Your task to perform on an android device: open app "ColorNote Notepad Notes" (install if not already installed), go to login, and select forgot password Image 0: 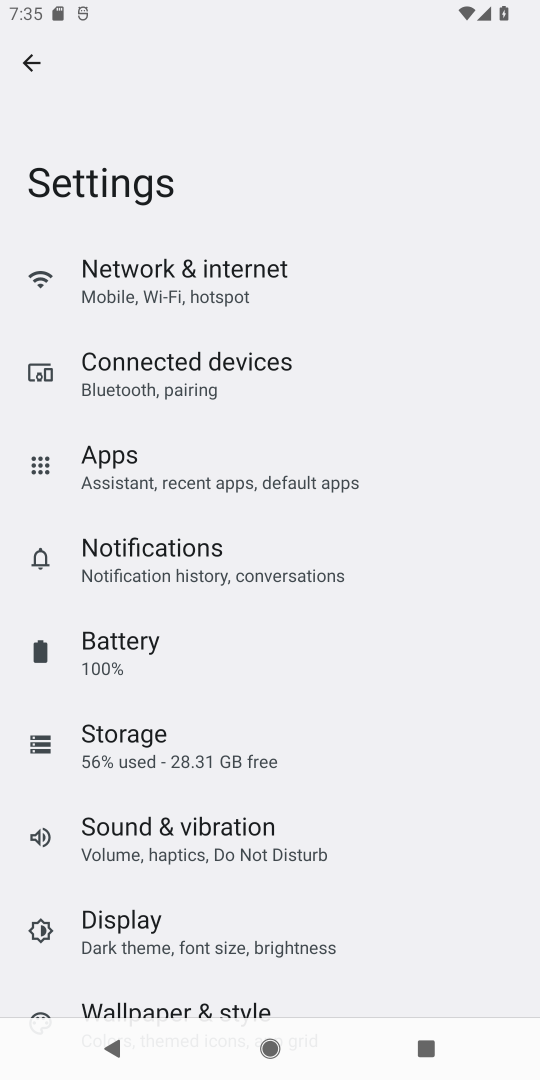
Step 0: press home button
Your task to perform on an android device: open app "ColorNote Notepad Notes" (install if not already installed), go to login, and select forgot password Image 1: 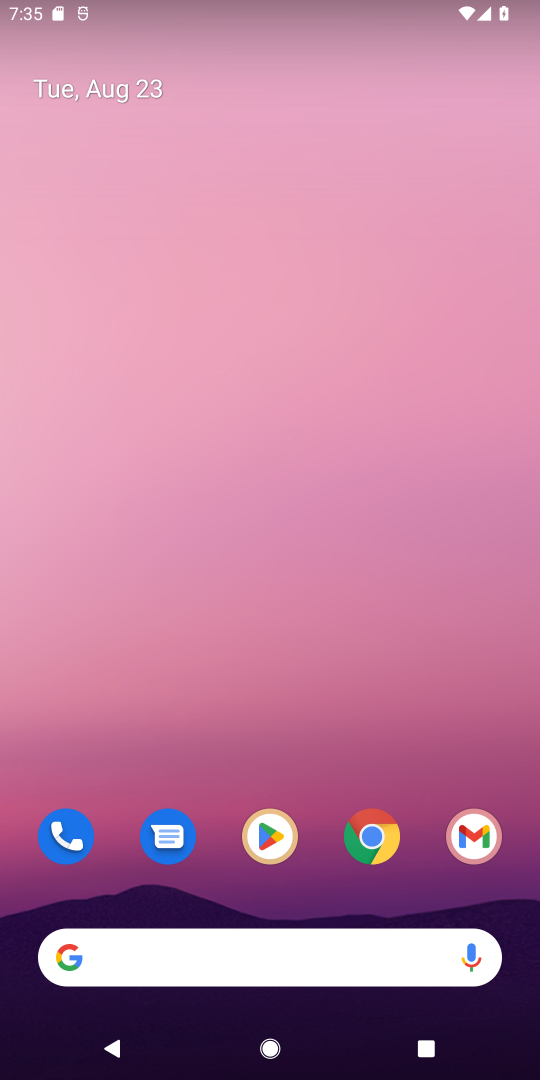
Step 1: click (267, 842)
Your task to perform on an android device: open app "ColorNote Notepad Notes" (install if not already installed), go to login, and select forgot password Image 2: 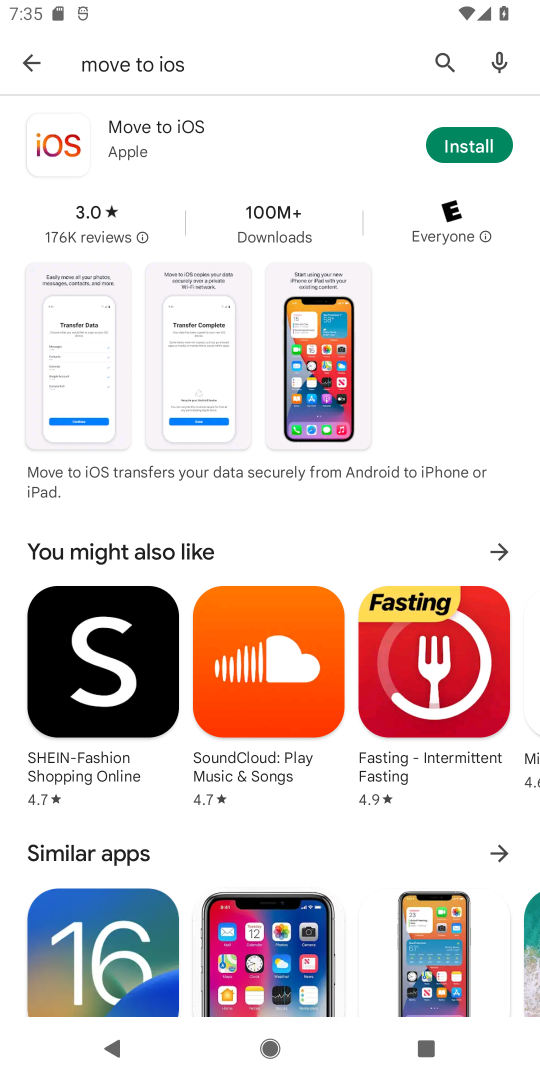
Step 2: click (440, 64)
Your task to perform on an android device: open app "ColorNote Notepad Notes" (install if not already installed), go to login, and select forgot password Image 3: 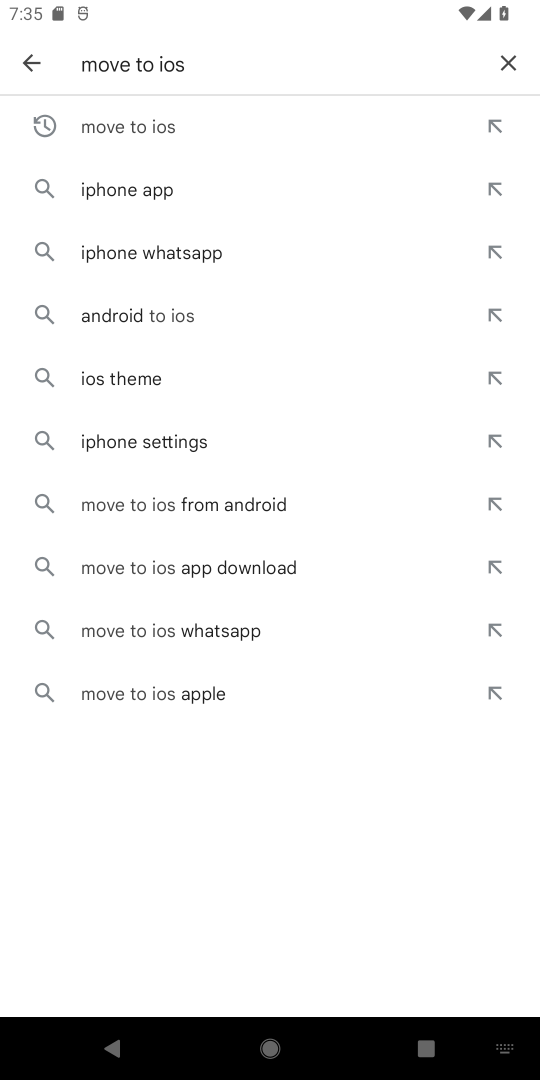
Step 3: click (511, 52)
Your task to perform on an android device: open app "ColorNote Notepad Notes" (install if not already installed), go to login, and select forgot password Image 4: 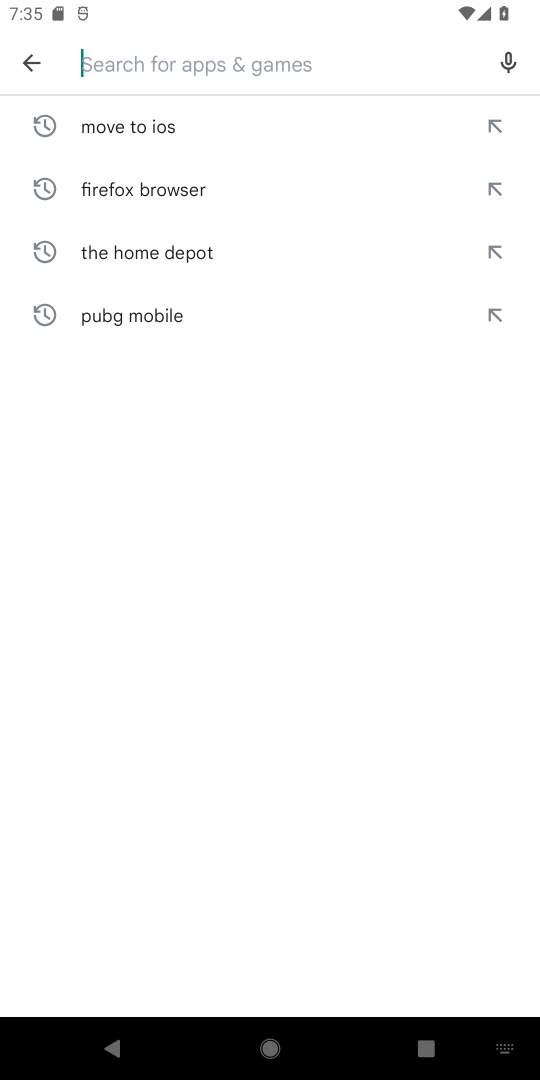
Step 4: type "ColorNote Notepad Notes"
Your task to perform on an android device: open app "ColorNote Notepad Notes" (install if not already installed), go to login, and select forgot password Image 5: 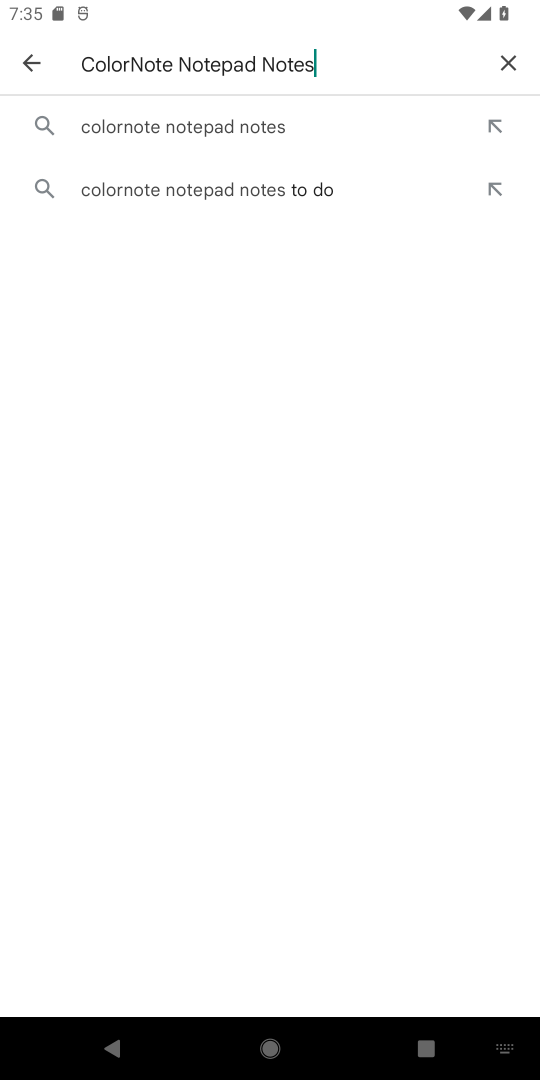
Step 5: click (249, 145)
Your task to perform on an android device: open app "ColorNote Notepad Notes" (install if not already installed), go to login, and select forgot password Image 6: 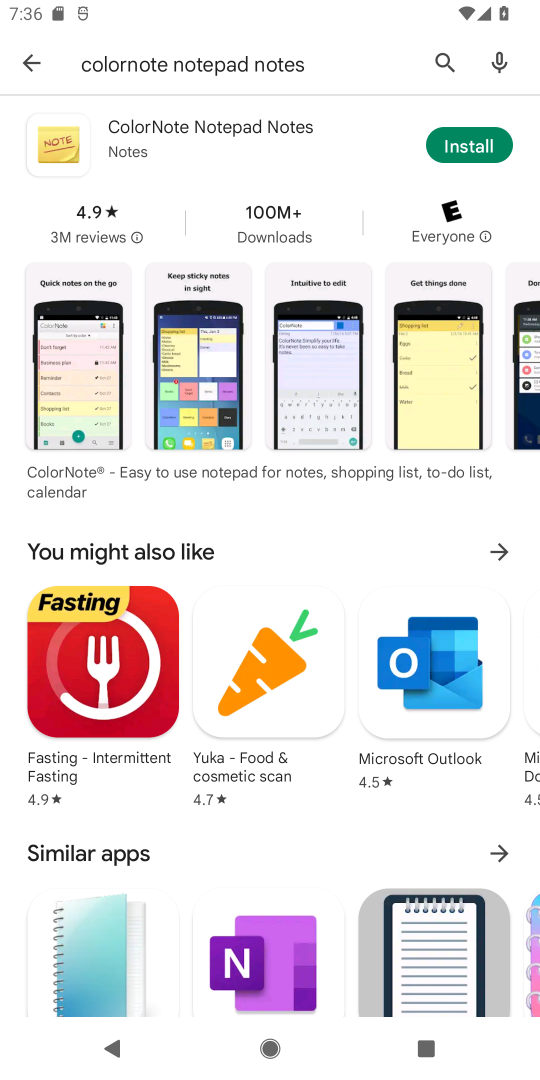
Step 6: click (455, 146)
Your task to perform on an android device: open app "ColorNote Notepad Notes" (install if not already installed), go to login, and select forgot password Image 7: 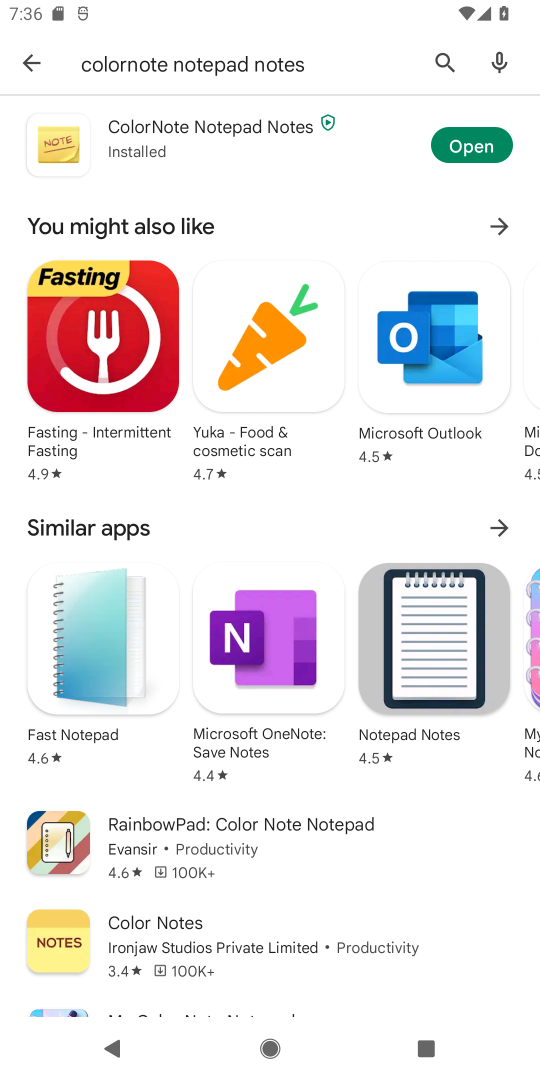
Step 7: click (486, 141)
Your task to perform on an android device: open app "ColorNote Notepad Notes" (install if not already installed), go to login, and select forgot password Image 8: 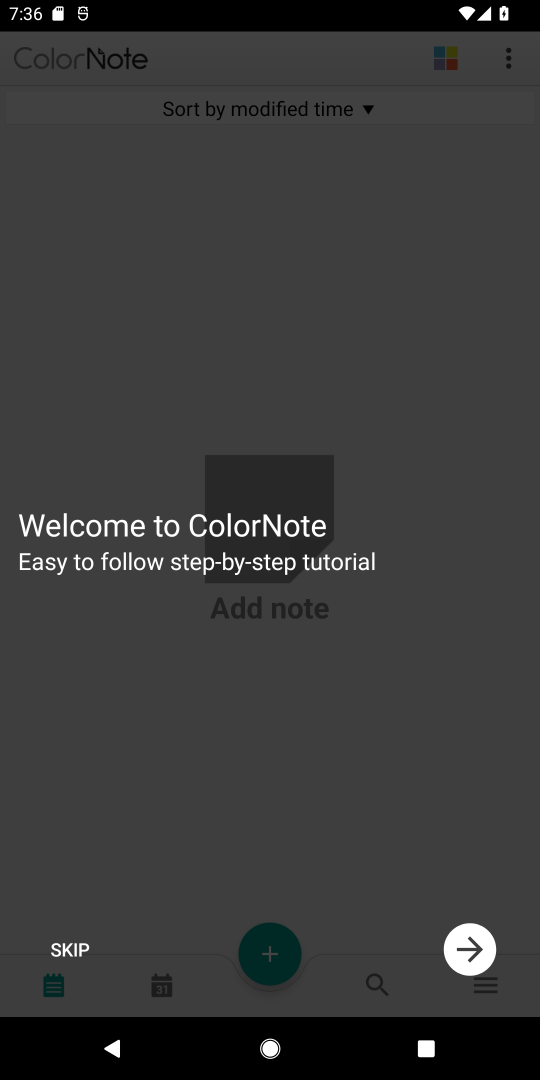
Step 8: click (69, 945)
Your task to perform on an android device: open app "ColorNote Notepad Notes" (install if not already installed), go to login, and select forgot password Image 9: 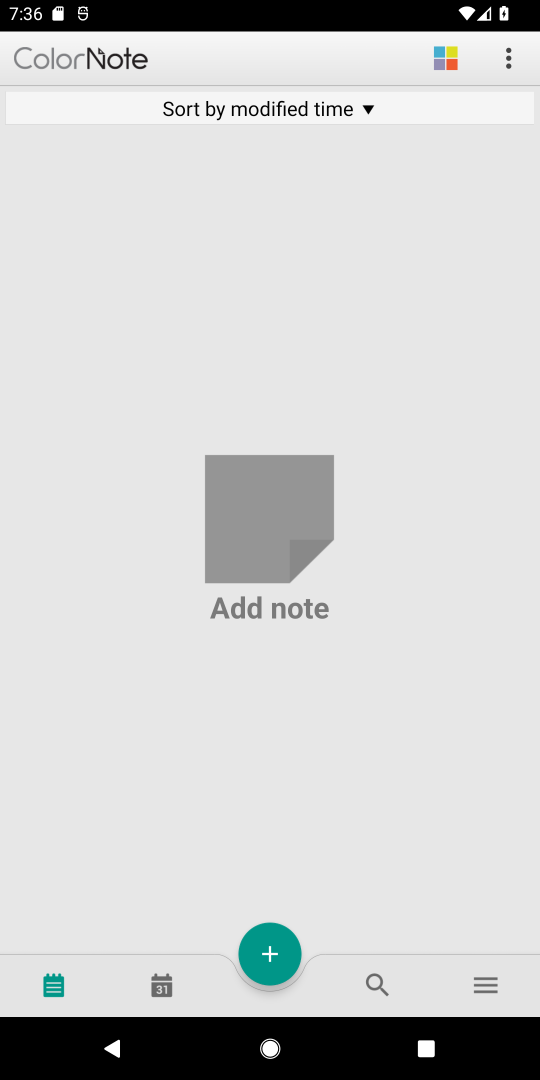
Step 9: task complete